Your task to perform on an android device: open sync settings in chrome Image 0: 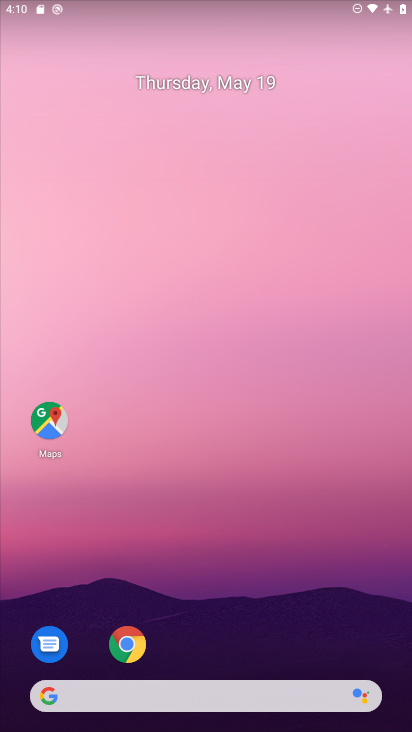
Step 0: drag from (254, 589) to (227, 10)
Your task to perform on an android device: open sync settings in chrome Image 1: 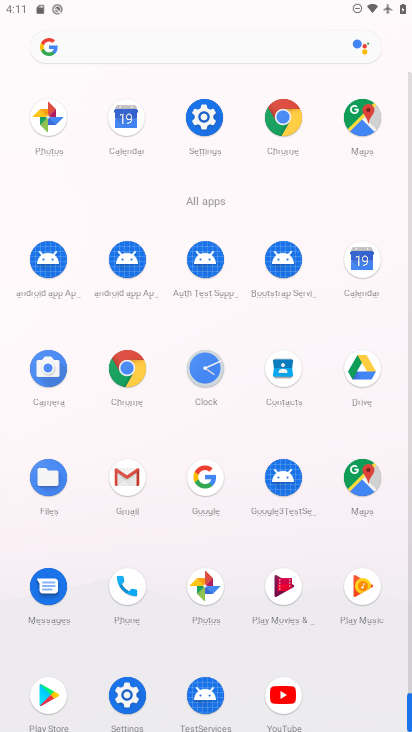
Step 1: click (124, 363)
Your task to perform on an android device: open sync settings in chrome Image 2: 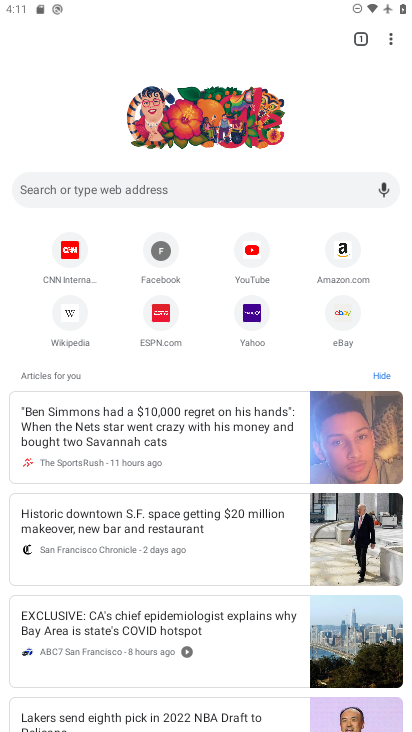
Step 2: drag from (391, 33) to (245, 333)
Your task to perform on an android device: open sync settings in chrome Image 3: 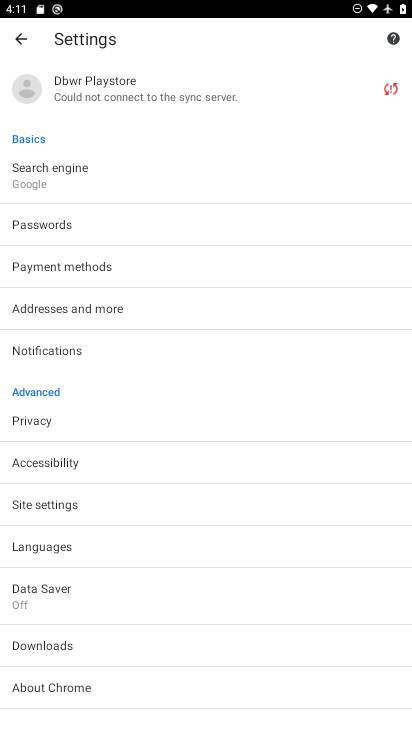
Step 3: drag from (281, 517) to (313, 158)
Your task to perform on an android device: open sync settings in chrome Image 4: 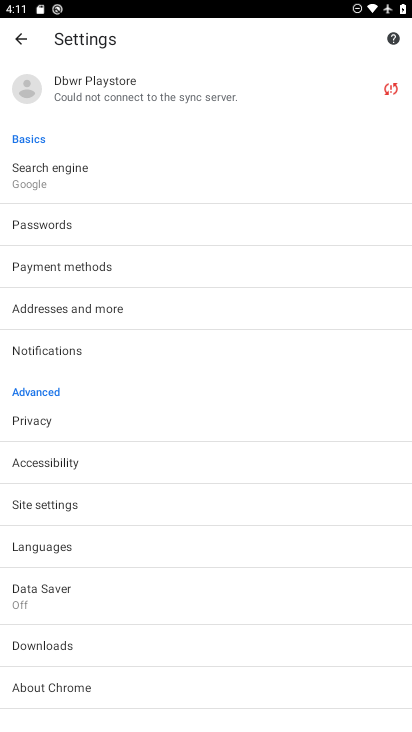
Step 4: click (79, 77)
Your task to perform on an android device: open sync settings in chrome Image 5: 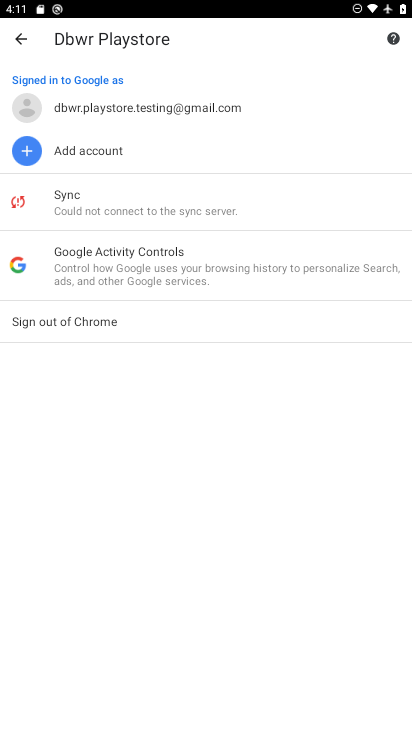
Step 5: click (93, 219)
Your task to perform on an android device: open sync settings in chrome Image 6: 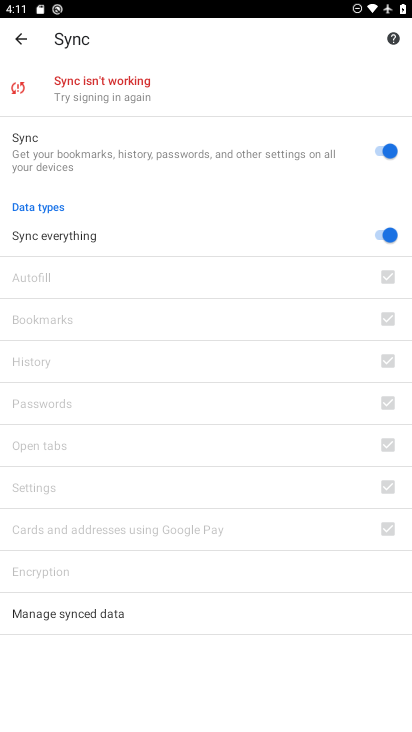
Step 6: task complete